Your task to perform on an android device: turn on priority inbox in the gmail app Image 0: 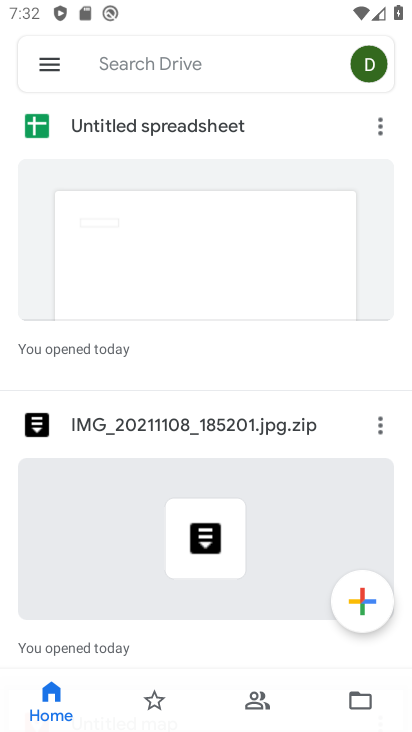
Step 0: press home button
Your task to perform on an android device: turn on priority inbox in the gmail app Image 1: 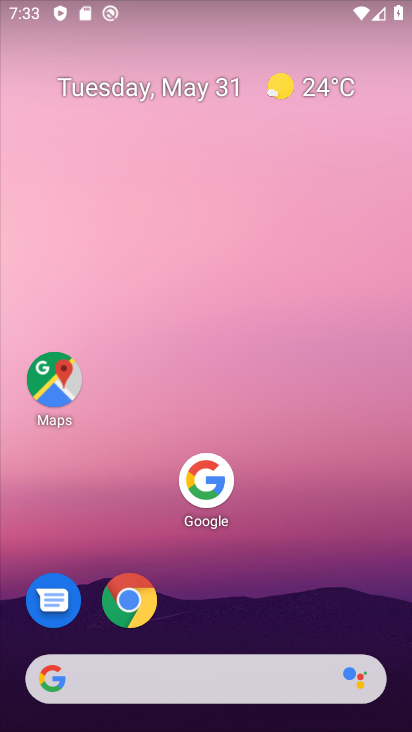
Step 1: drag from (134, 684) to (255, 168)
Your task to perform on an android device: turn on priority inbox in the gmail app Image 2: 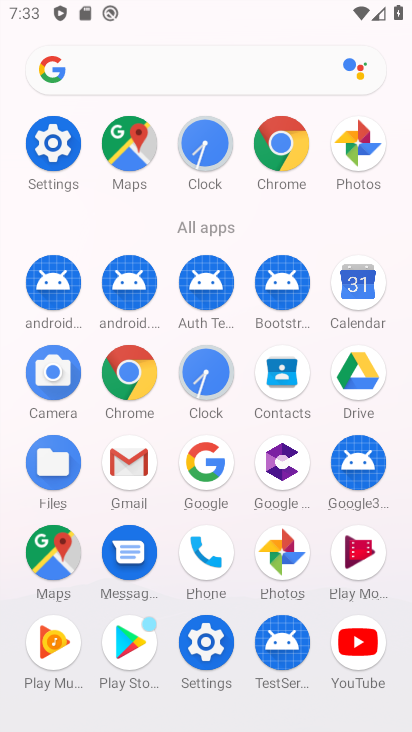
Step 2: click (134, 469)
Your task to perform on an android device: turn on priority inbox in the gmail app Image 3: 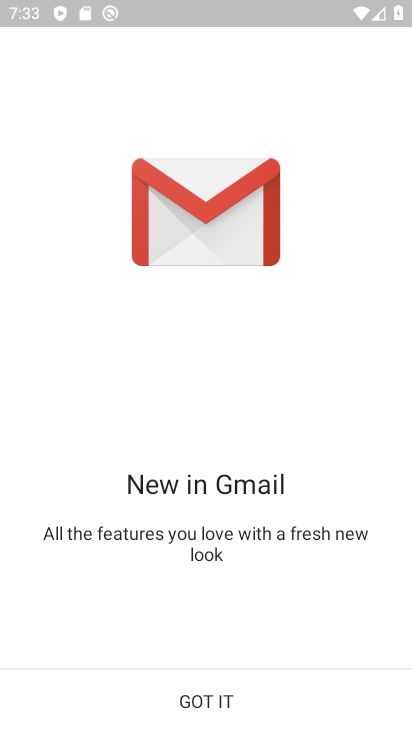
Step 3: click (201, 694)
Your task to perform on an android device: turn on priority inbox in the gmail app Image 4: 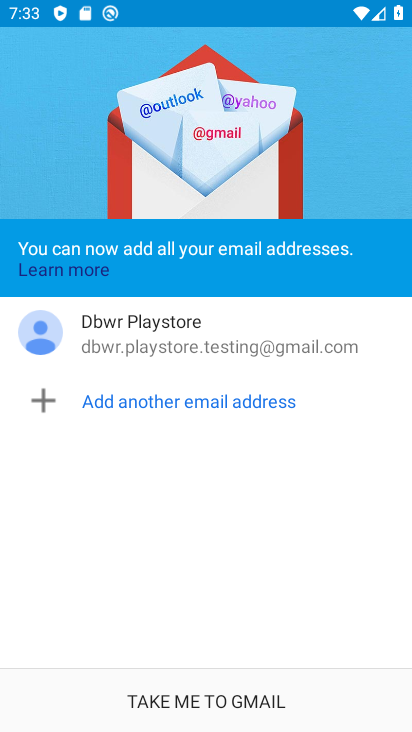
Step 4: click (201, 694)
Your task to perform on an android device: turn on priority inbox in the gmail app Image 5: 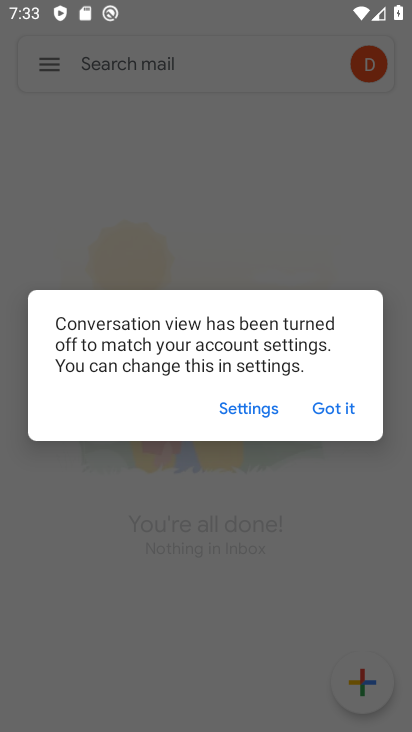
Step 5: click (327, 407)
Your task to perform on an android device: turn on priority inbox in the gmail app Image 6: 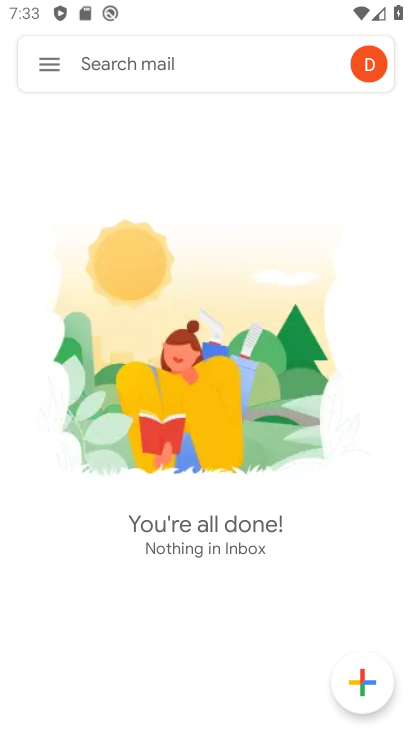
Step 6: click (49, 63)
Your task to perform on an android device: turn on priority inbox in the gmail app Image 7: 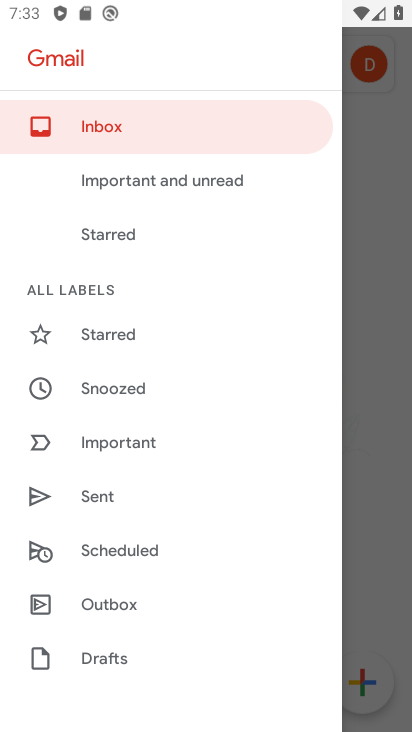
Step 7: drag from (202, 622) to (272, 78)
Your task to perform on an android device: turn on priority inbox in the gmail app Image 8: 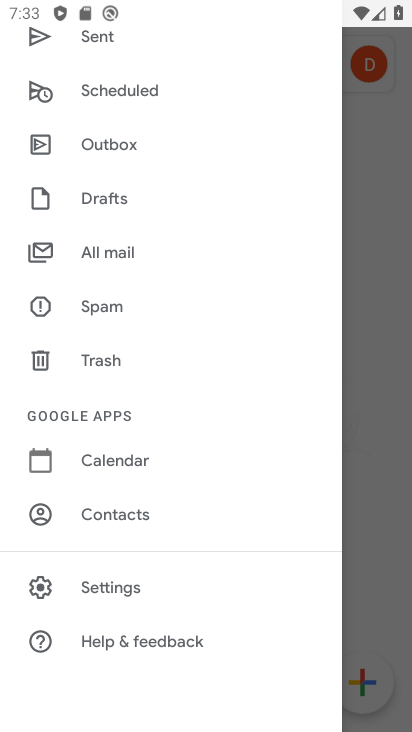
Step 8: click (115, 588)
Your task to perform on an android device: turn on priority inbox in the gmail app Image 9: 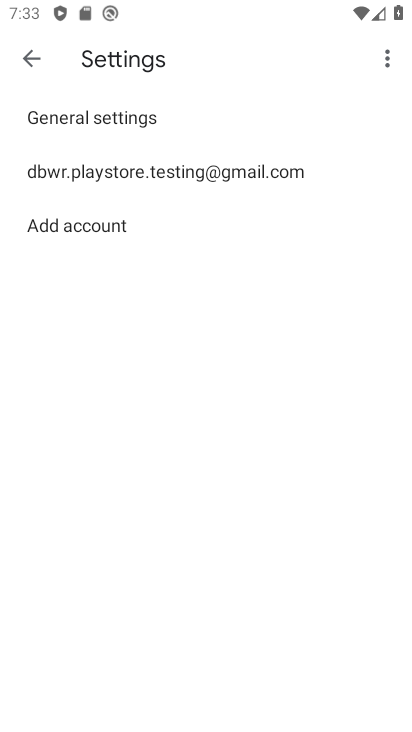
Step 9: click (220, 169)
Your task to perform on an android device: turn on priority inbox in the gmail app Image 10: 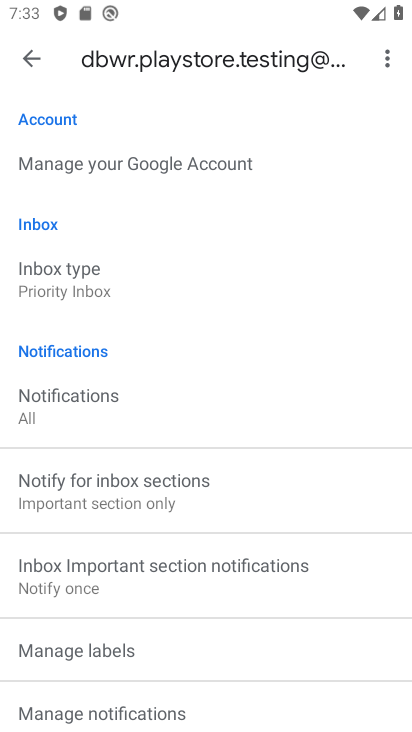
Step 10: click (86, 289)
Your task to perform on an android device: turn on priority inbox in the gmail app Image 11: 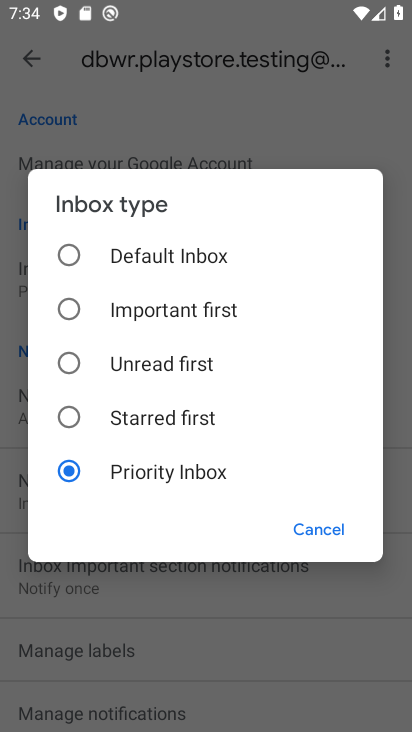
Step 11: task complete